Your task to perform on an android device: Search for a nice rug on Crate & Barrel Image 0: 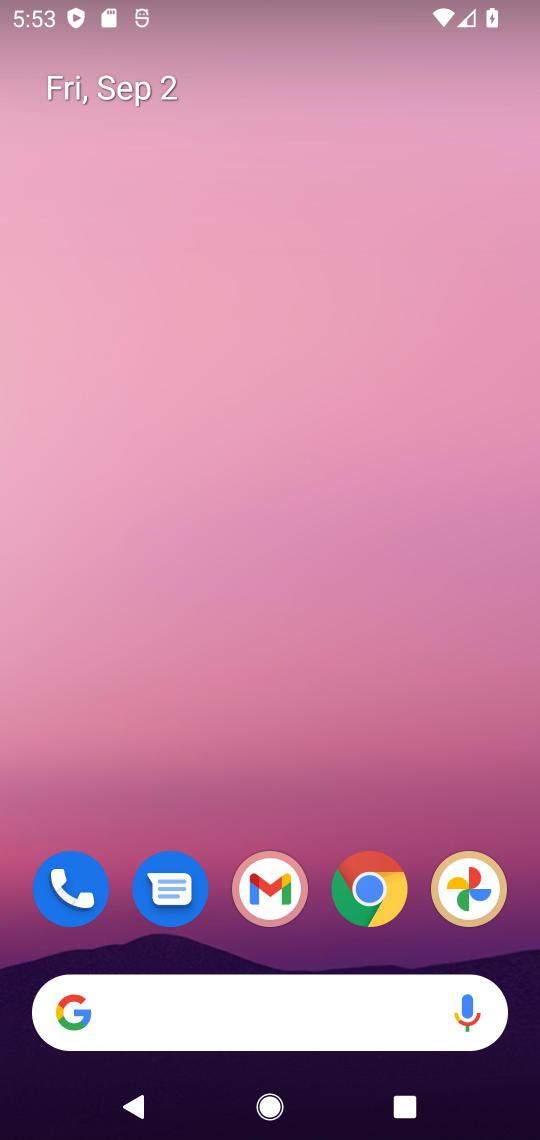
Step 0: click (207, 1017)
Your task to perform on an android device: Search for a nice rug on Crate & Barrel Image 1: 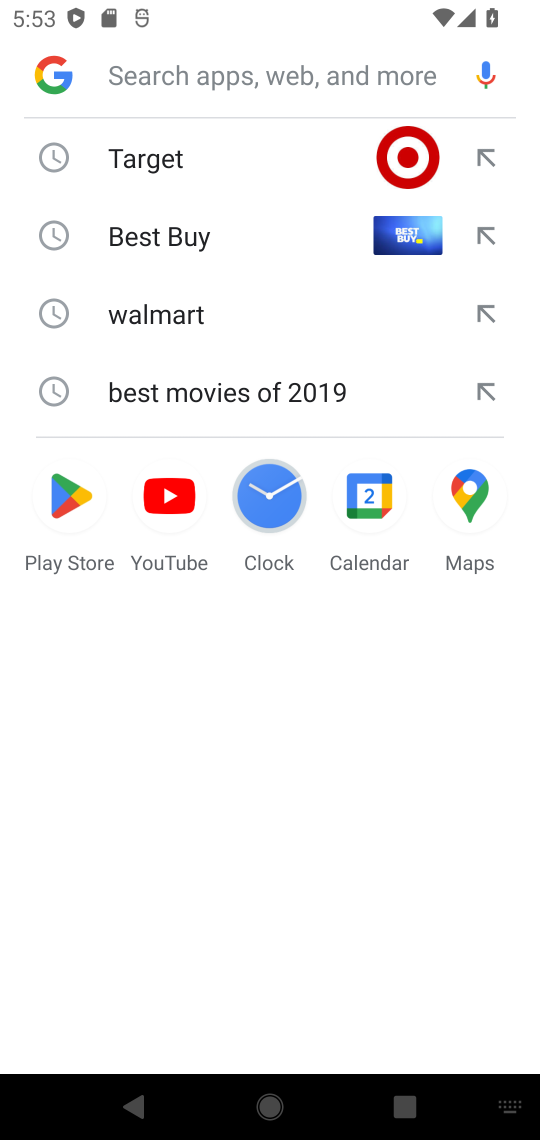
Step 1: type "Crate & Barrel"
Your task to perform on an android device: Search for a nice rug on Crate & Barrel Image 2: 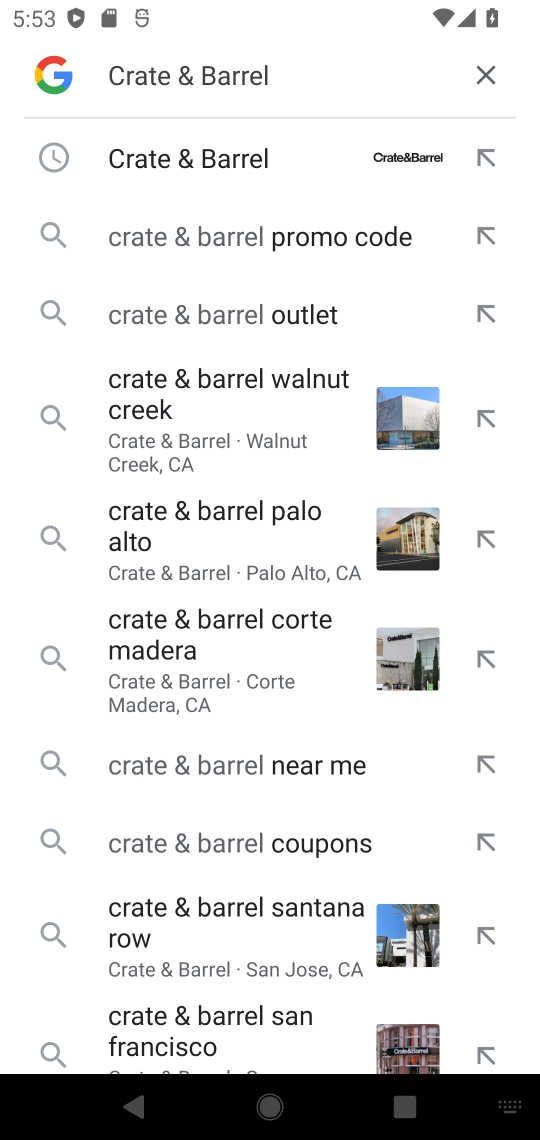
Step 2: click (184, 146)
Your task to perform on an android device: Search for a nice rug on Crate & Barrel Image 3: 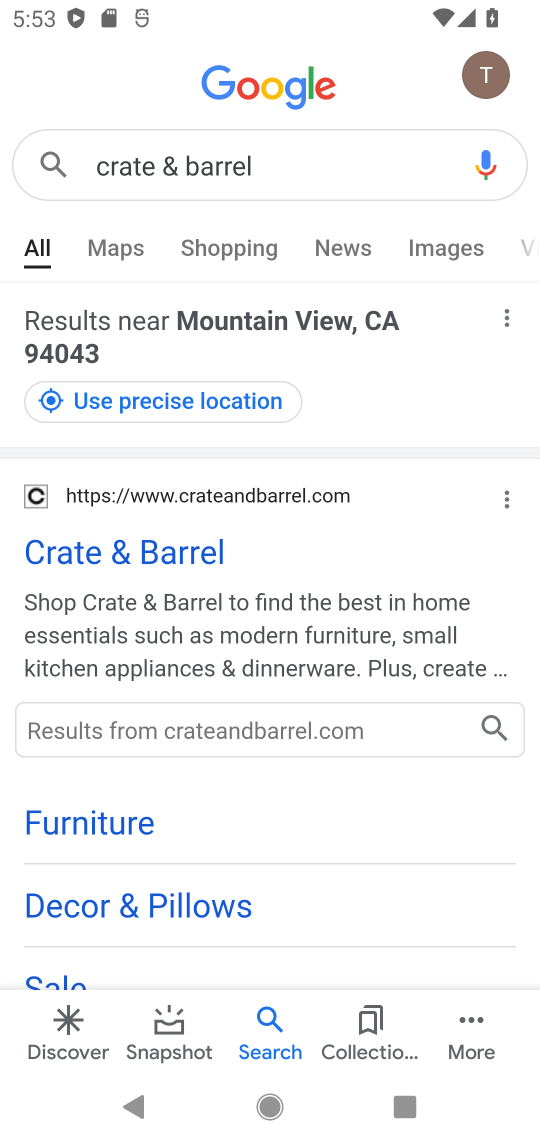
Step 3: click (171, 540)
Your task to perform on an android device: Search for a nice rug on Crate & Barrel Image 4: 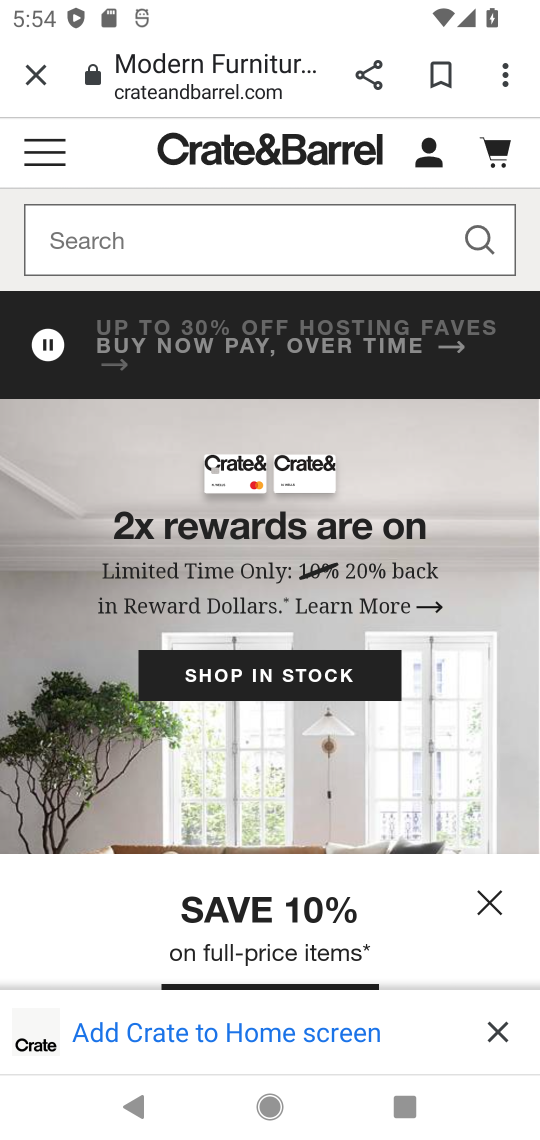
Step 4: click (283, 238)
Your task to perform on an android device: Search for a nice rug on Crate & Barrel Image 5: 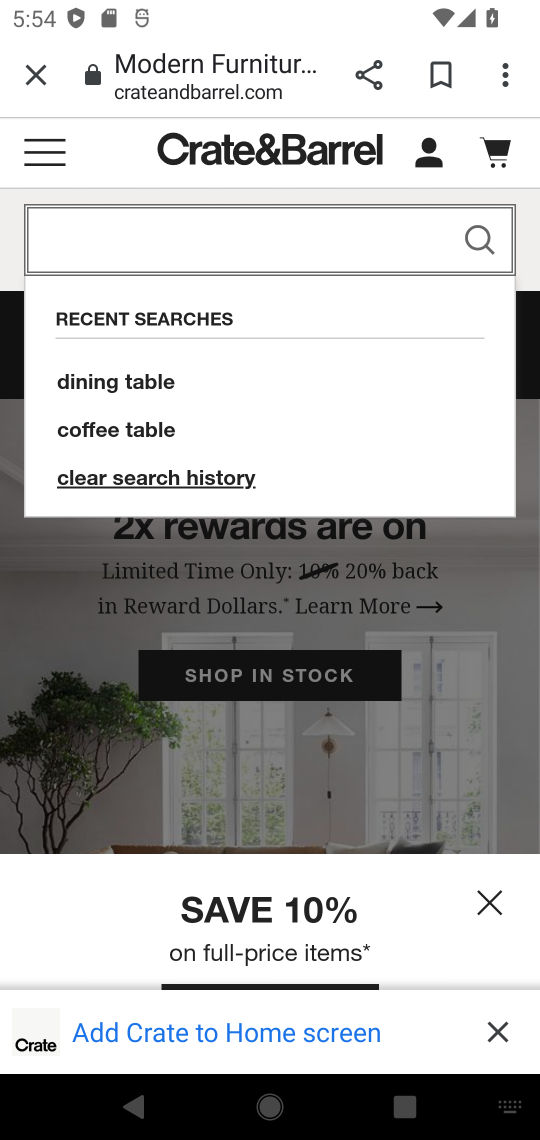
Step 5: type "nice rug"
Your task to perform on an android device: Search for a nice rug on Crate & Barrel Image 6: 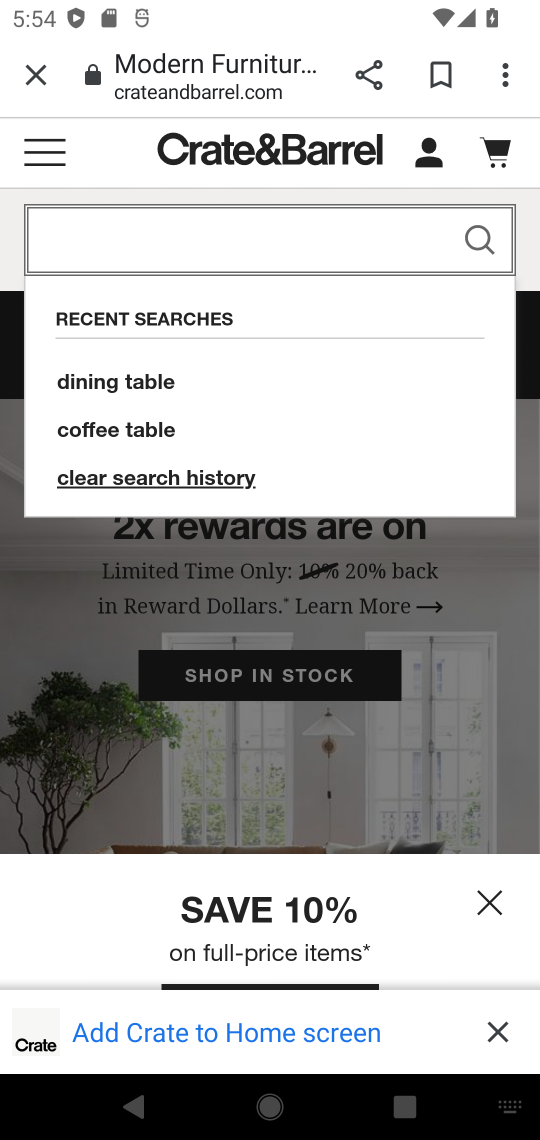
Step 6: type ""
Your task to perform on an android device: Search for a nice rug on Crate & Barrel Image 7: 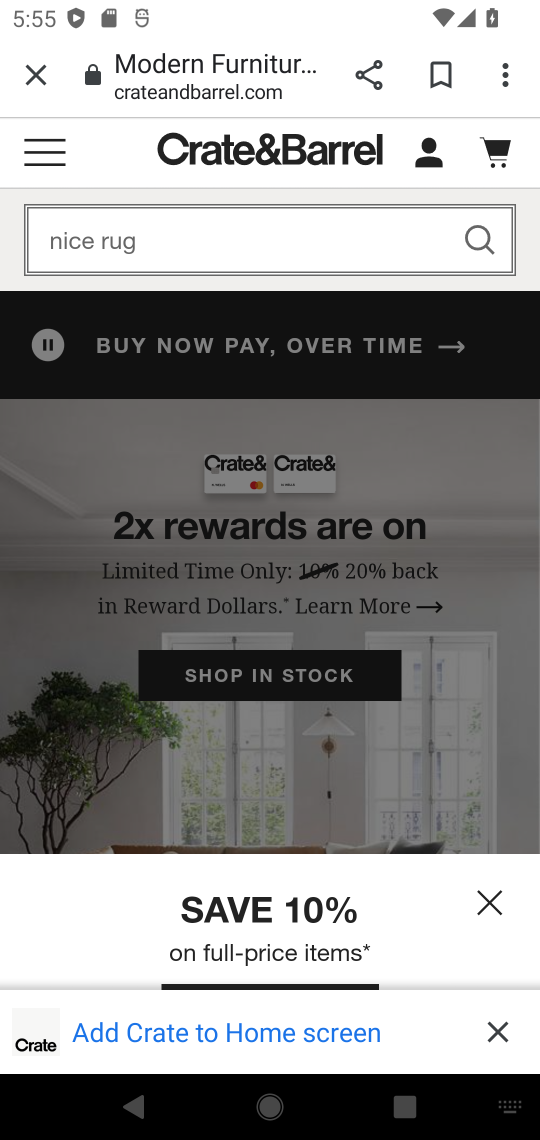
Step 7: click (489, 248)
Your task to perform on an android device: Search for a nice rug on Crate & Barrel Image 8: 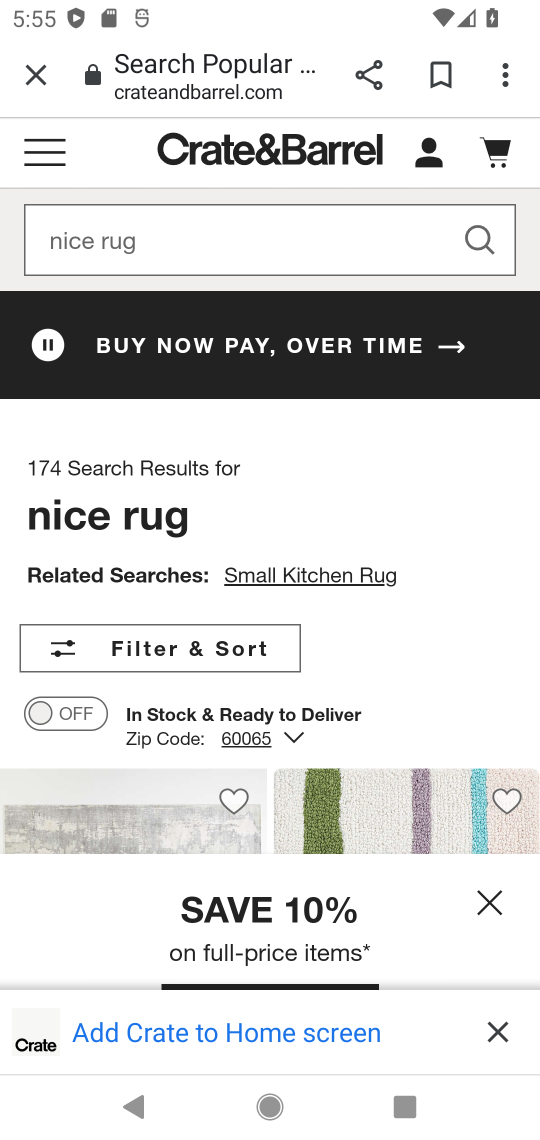
Step 8: click (429, 370)
Your task to perform on an android device: Search for a nice rug on Crate & Barrel Image 9: 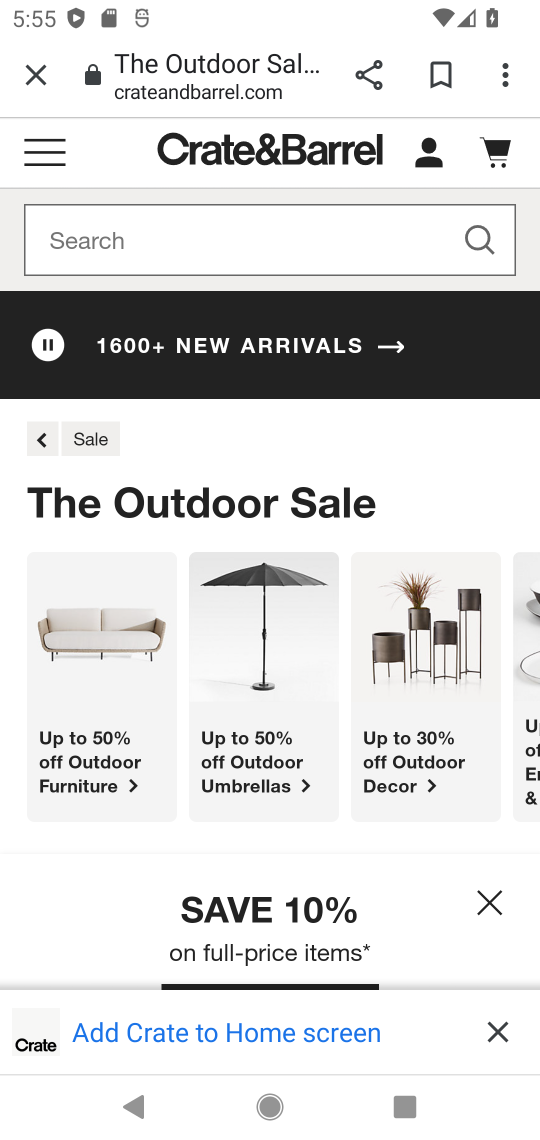
Step 9: click (262, 246)
Your task to perform on an android device: Search for a nice rug on Crate & Barrel Image 10: 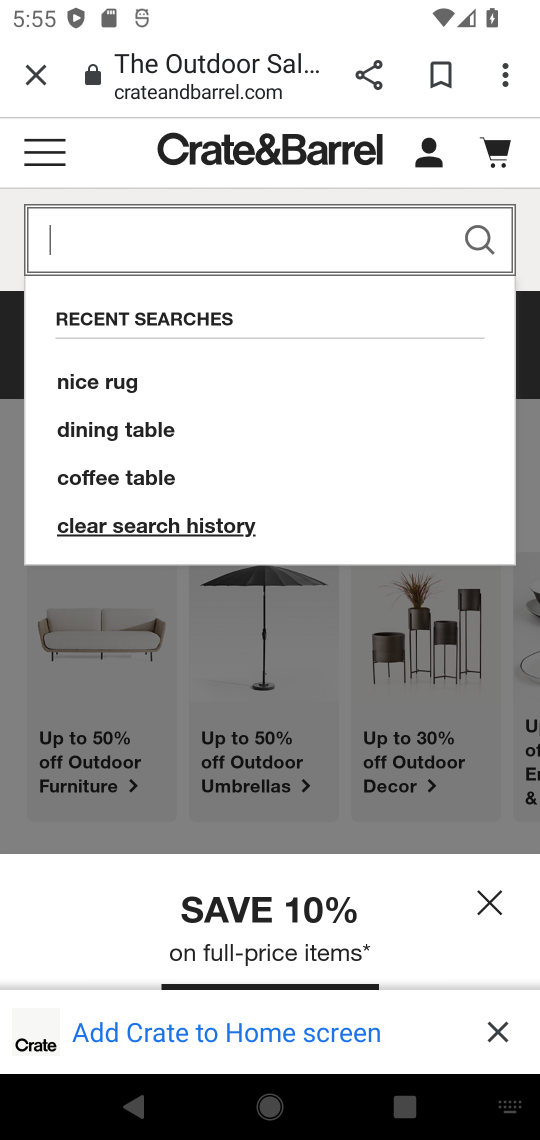
Step 10: click (91, 375)
Your task to perform on an android device: Search for a nice rug on Crate & Barrel Image 11: 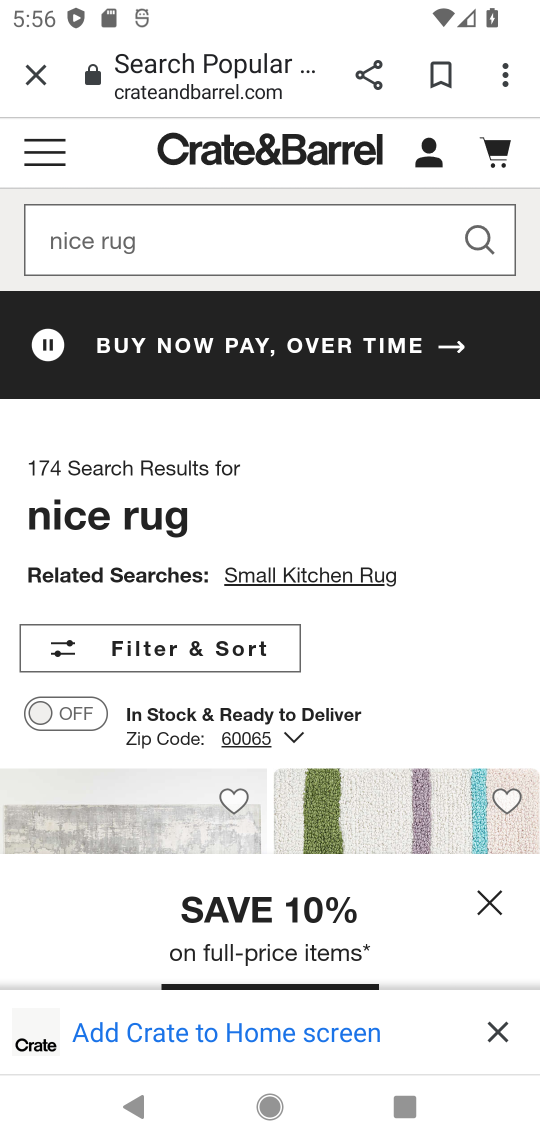
Step 11: task complete